Your task to perform on an android device: What's the weather going to be this weekend? Image 0: 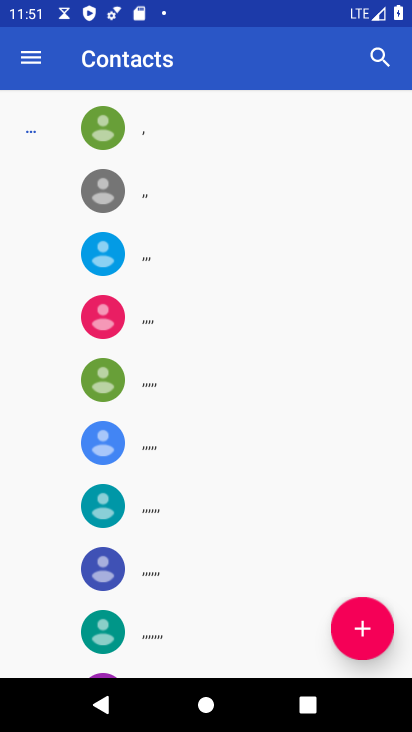
Step 0: press home button
Your task to perform on an android device: What's the weather going to be this weekend? Image 1: 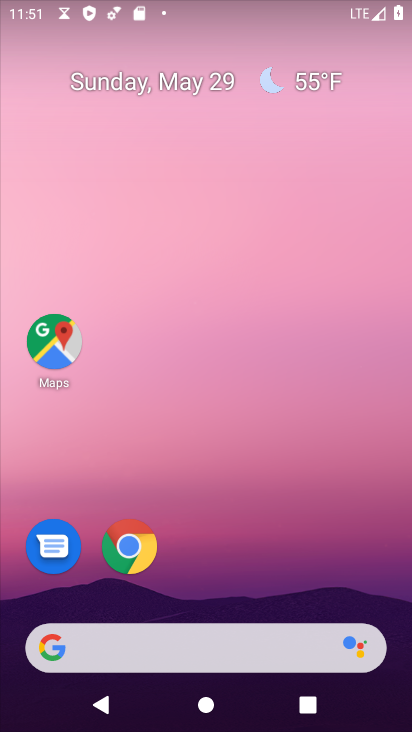
Step 1: click (55, 646)
Your task to perform on an android device: What's the weather going to be this weekend? Image 2: 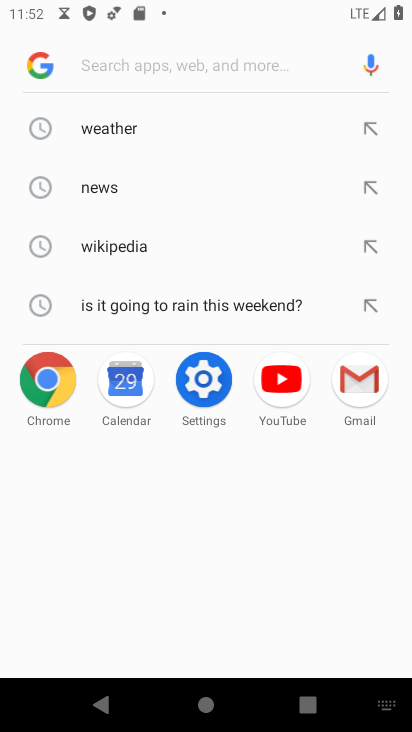
Step 2: click (114, 132)
Your task to perform on an android device: What's the weather going to be this weekend? Image 3: 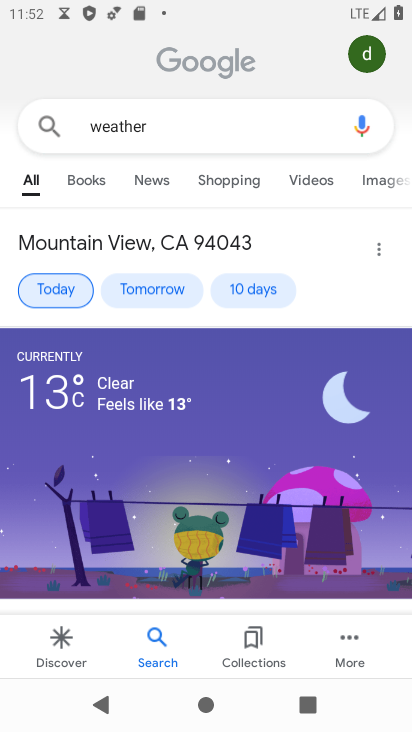
Step 3: click (258, 291)
Your task to perform on an android device: What's the weather going to be this weekend? Image 4: 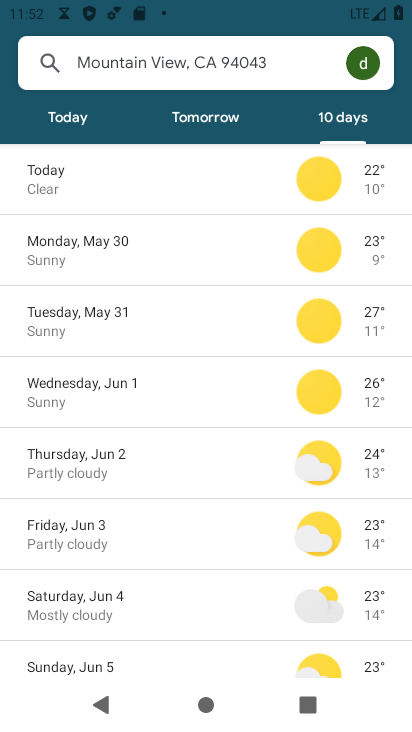
Step 4: drag from (211, 368) to (245, 286)
Your task to perform on an android device: What's the weather going to be this weekend? Image 5: 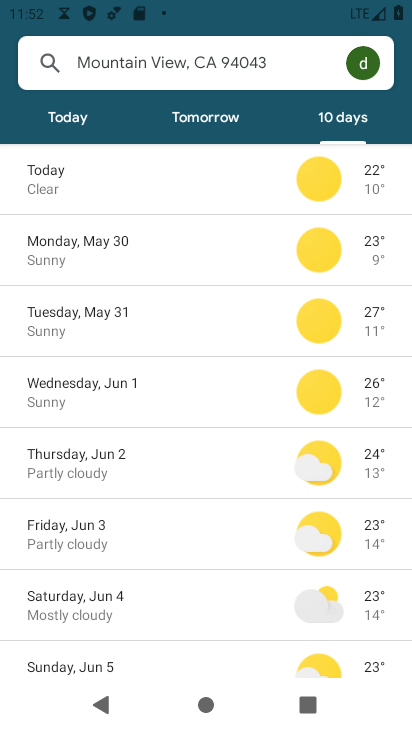
Step 5: click (123, 613)
Your task to perform on an android device: What's the weather going to be this weekend? Image 6: 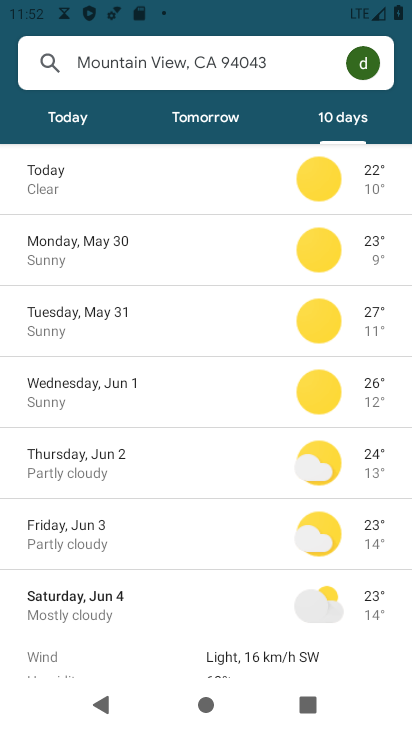
Step 6: task complete